Your task to perform on an android device: Go to Reddit.com Image 0: 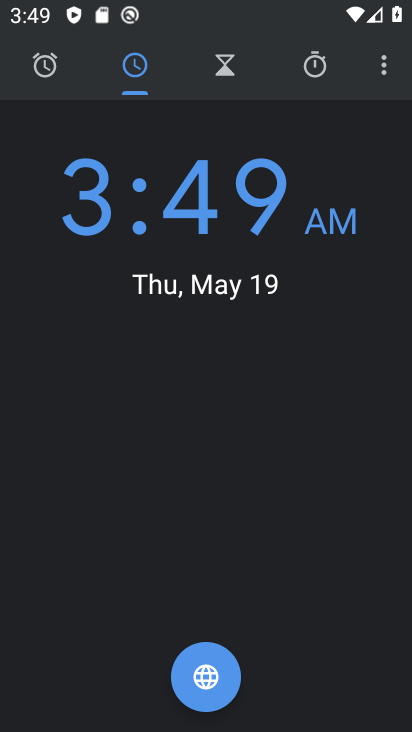
Step 0: press home button
Your task to perform on an android device: Go to Reddit.com Image 1: 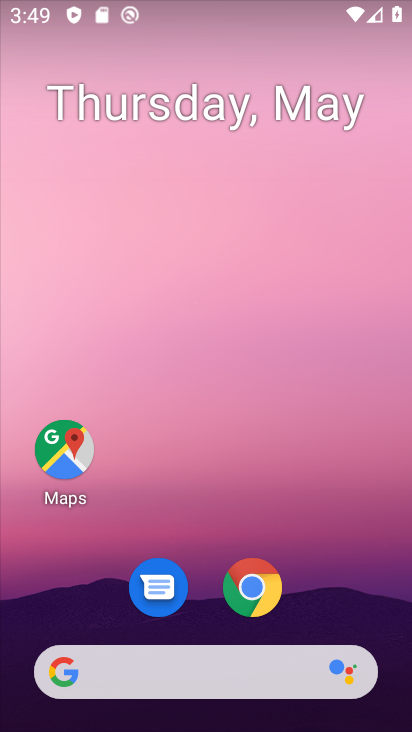
Step 1: drag from (190, 647) to (193, 183)
Your task to perform on an android device: Go to Reddit.com Image 2: 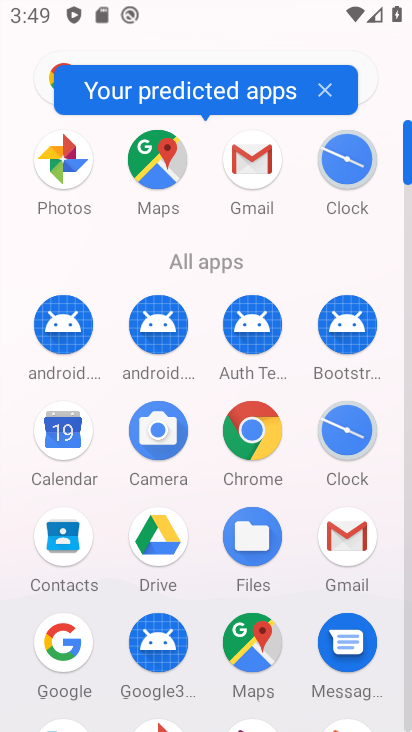
Step 2: click (62, 642)
Your task to perform on an android device: Go to Reddit.com Image 3: 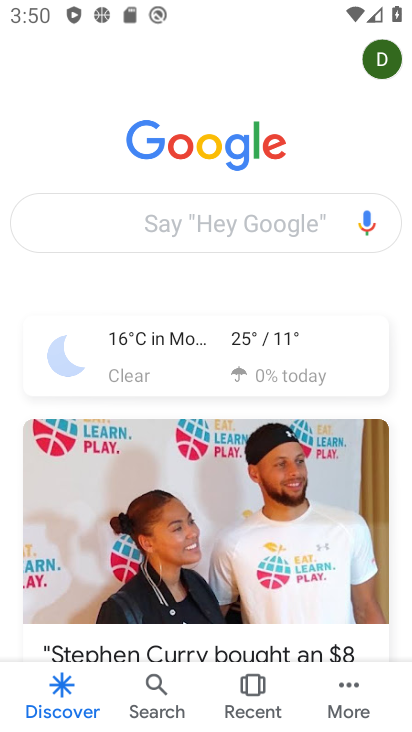
Step 3: click (160, 232)
Your task to perform on an android device: Go to Reddit.com Image 4: 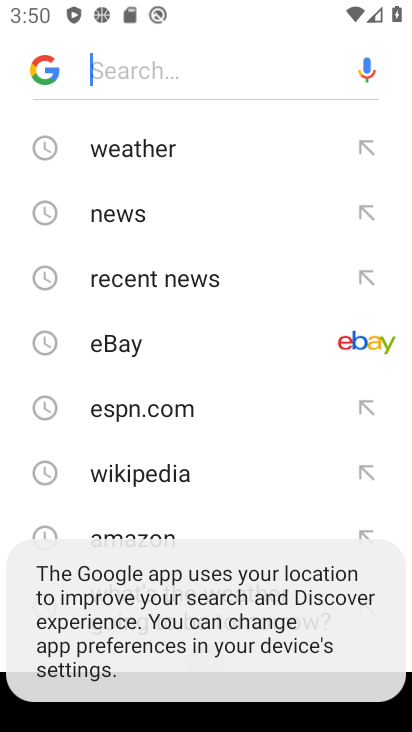
Step 4: drag from (133, 480) to (133, 156)
Your task to perform on an android device: Go to Reddit.com Image 5: 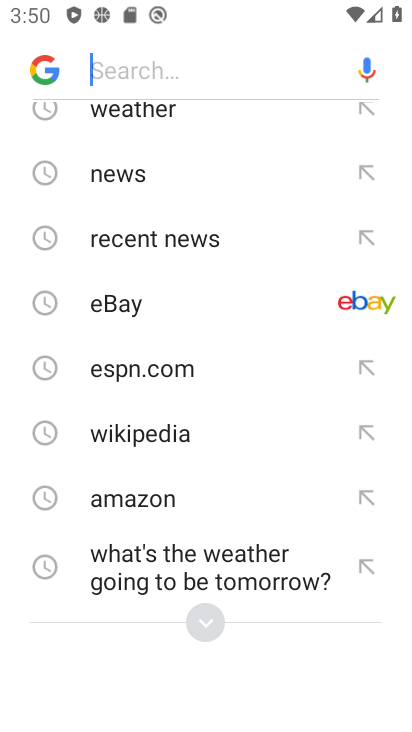
Step 5: drag from (131, 501) to (121, 211)
Your task to perform on an android device: Go to Reddit.com Image 6: 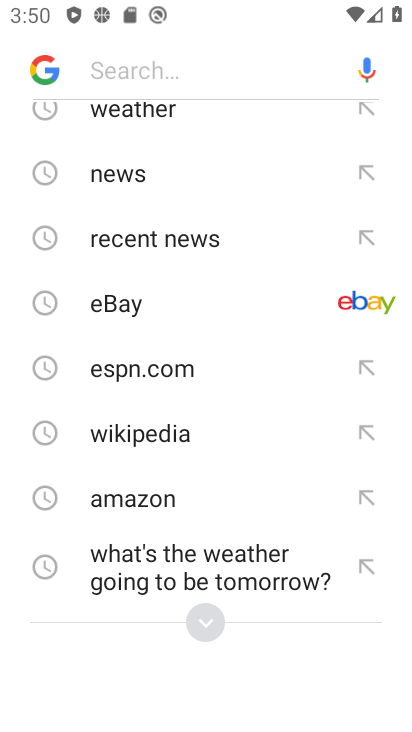
Step 6: drag from (131, 563) to (137, 270)
Your task to perform on an android device: Go to Reddit.com Image 7: 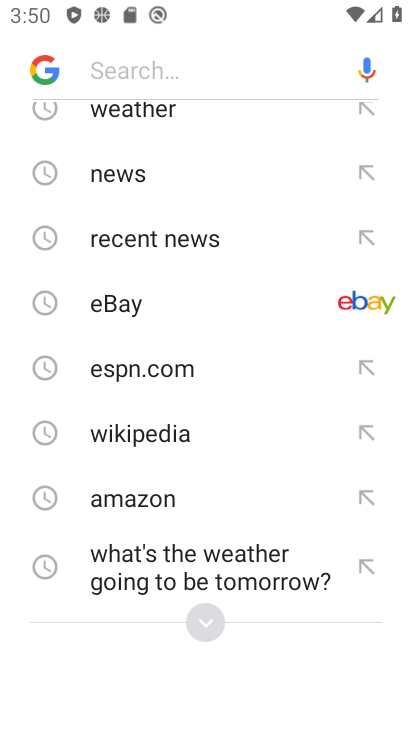
Step 7: type "reddit.com"
Your task to perform on an android device: Go to Reddit.com Image 8: 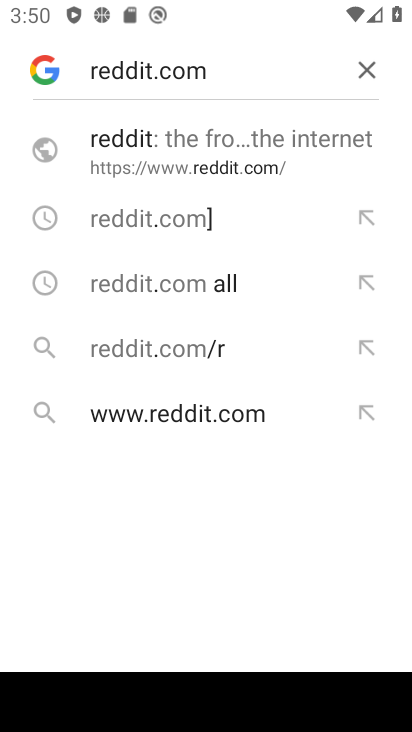
Step 8: click (129, 145)
Your task to perform on an android device: Go to Reddit.com Image 9: 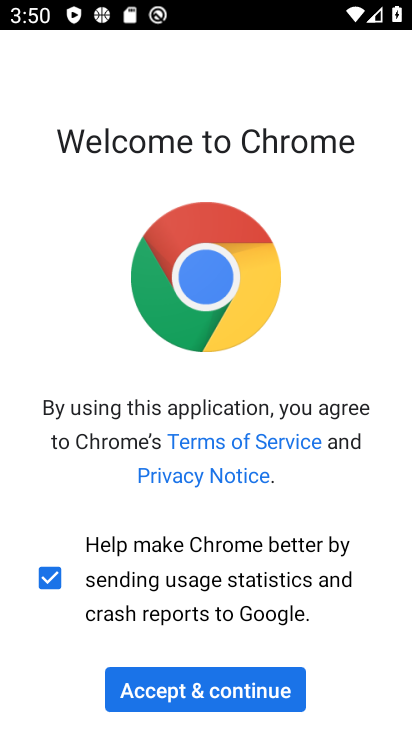
Step 9: task complete